Your task to perform on an android device: turn on improve location accuracy Image 0: 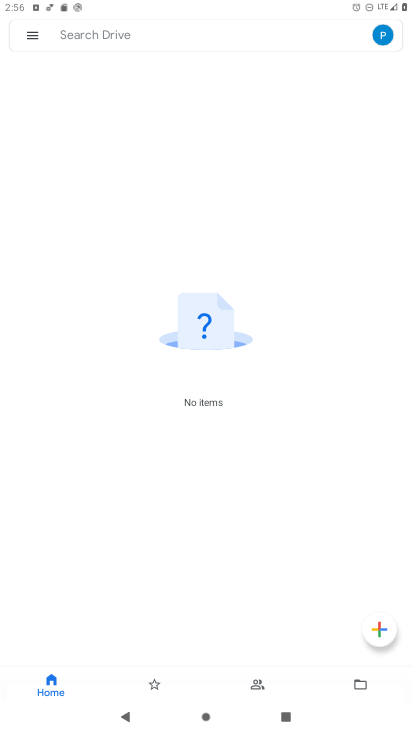
Step 0: press home button
Your task to perform on an android device: turn on improve location accuracy Image 1: 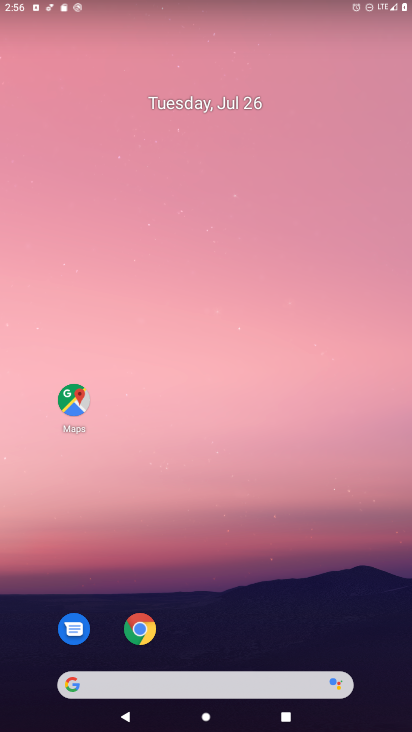
Step 1: drag from (394, 681) to (350, 116)
Your task to perform on an android device: turn on improve location accuracy Image 2: 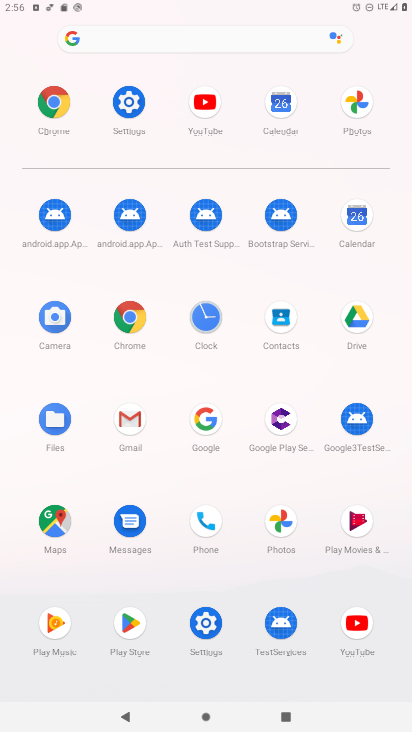
Step 2: click (204, 625)
Your task to perform on an android device: turn on improve location accuracy Image 3: 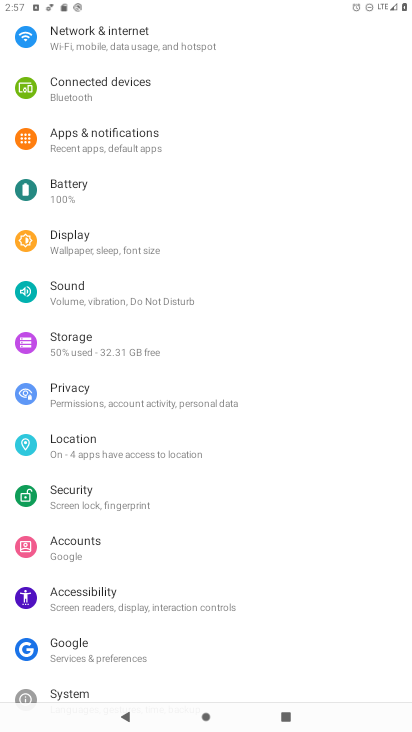
Step 3: click (87, 442)
Your task to perform on an android device: turn on improve location accuracy Image 4: 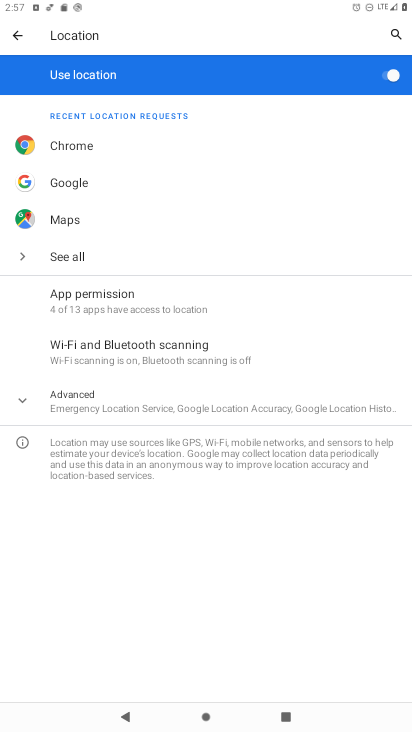
Step 4: click (21, 401)
Your task to perform on an android device: turn on improve location accuracy Image 5: 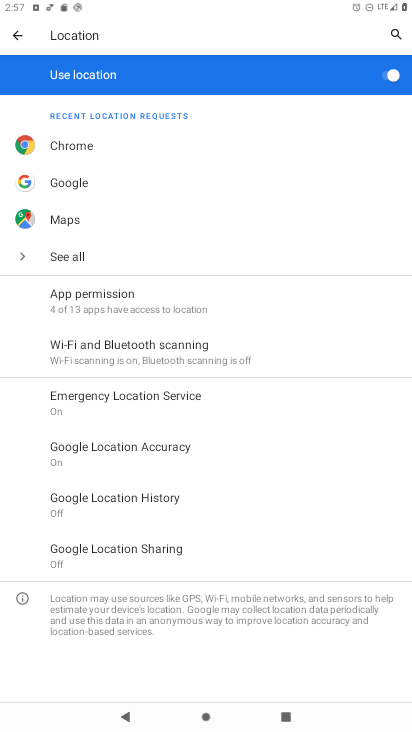
Step 5: click (120, 443)
Your task to perform on an android device: turn on improve location accuracy Image 6: 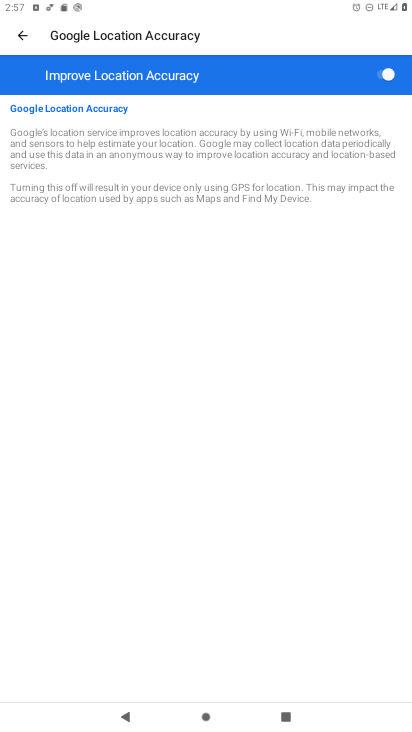
Step 6: task complete